Your task to perform on an android device: turn on translation in the chrome app Image 0: 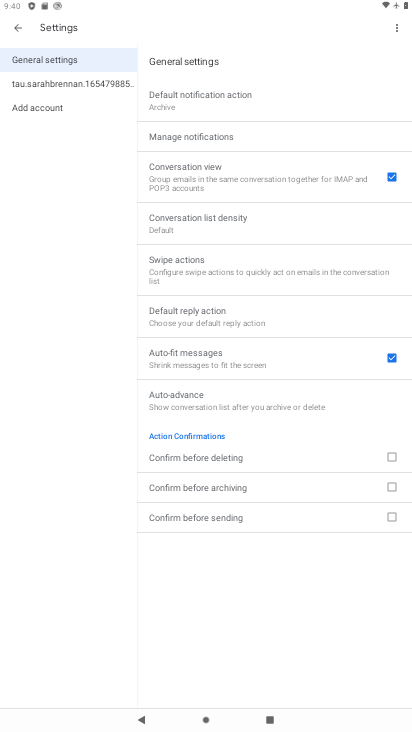
Step 0: press home button
Your task to perform on an android device: turn on translation in the chrome app Image 1: 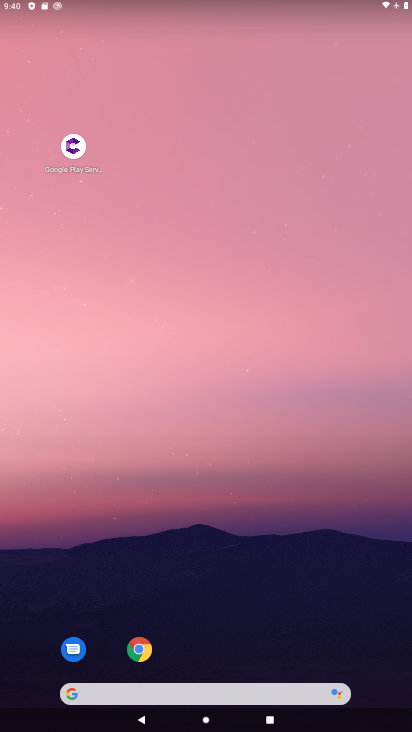
Step 1: click (132, 649)
Your task to perform on an android device: turn on translation in the chrome app Image 2: 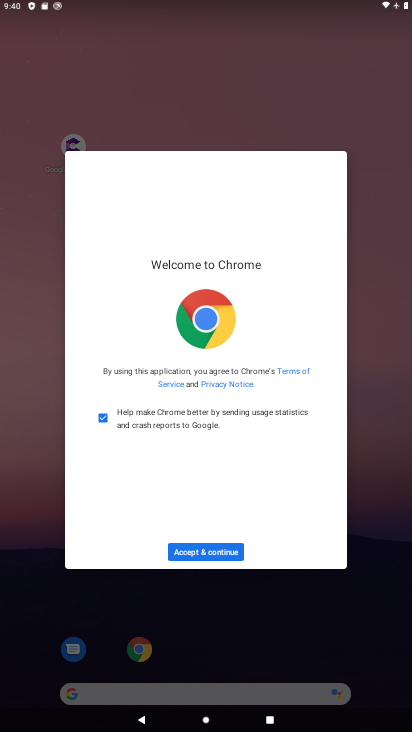
Step 2: click (216, 537)
Your task to perform on an android device: turn on translation in the chrome app Image 3: 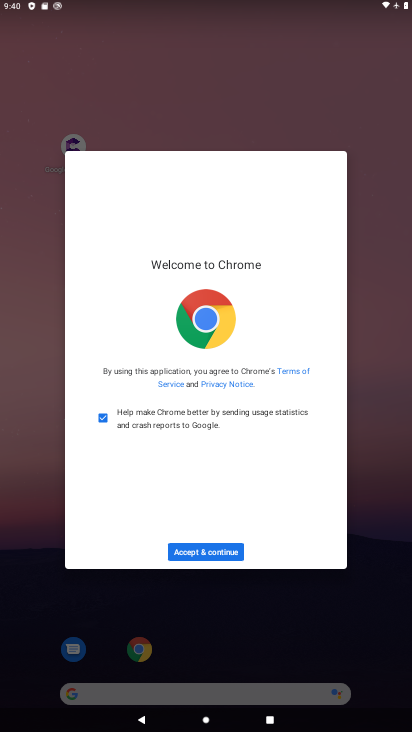
Step 3: click (220, 545)
Your task to perform on an android device: turn on translation in the chrome app Image 4: 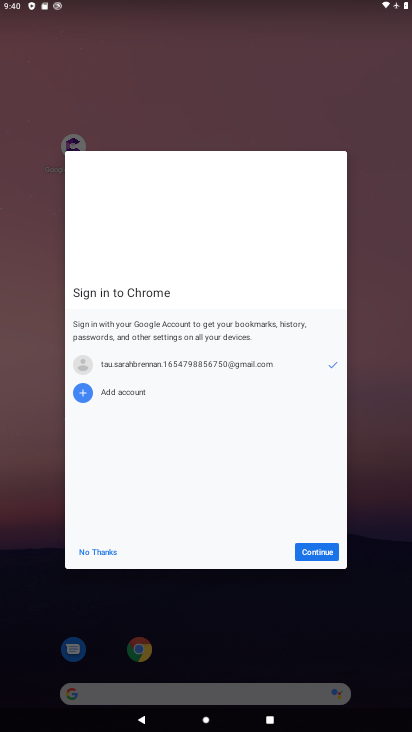
Step 4: click (317, 554)
Your task to perform on an android device: turn on translation in the chrome app Image 5: 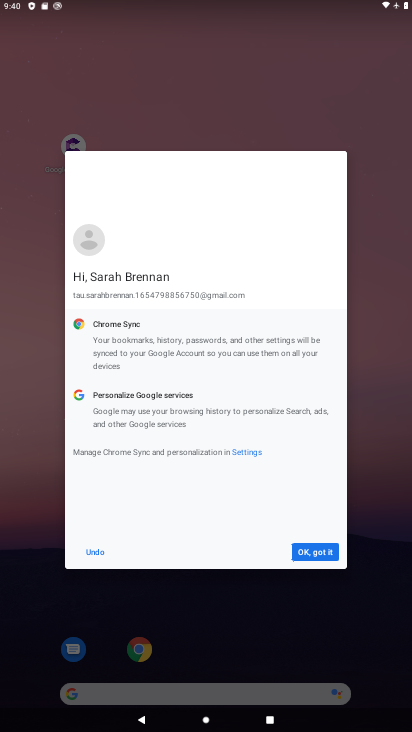
Step 5: click (318, 552)
Your task to perform on an android device: turn on translation in the chrome app Image 6: 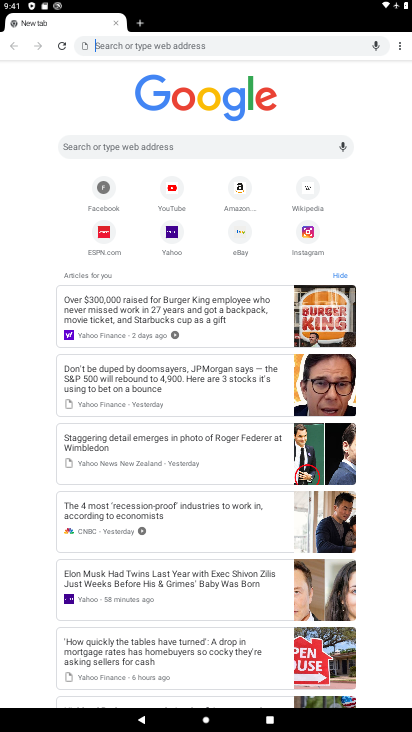
Step 6: click (394, 46)
Your task to perform on an android device: turn on translation in the chrome app Image 7: 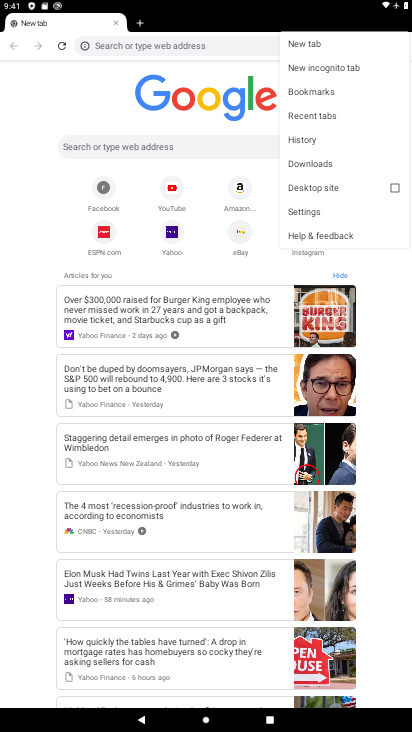
Step 7: click (302, 204)
Your task to perform on an android device: turn on translation in the chrome app Image 8: 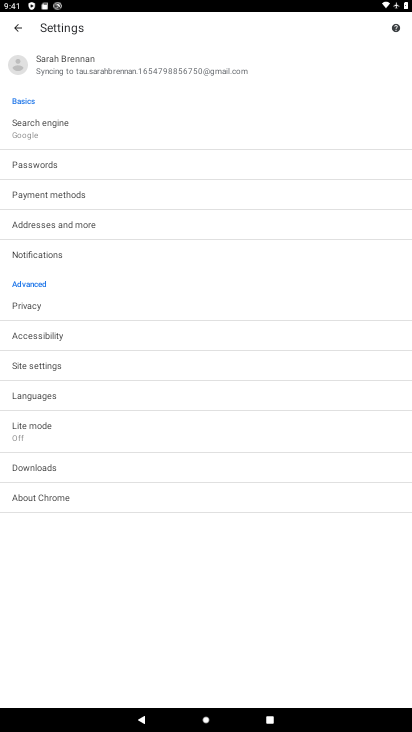
Step 8: click (38, 390)
Your task to perform on an android device: turn on translation in the chrome app Image 9: 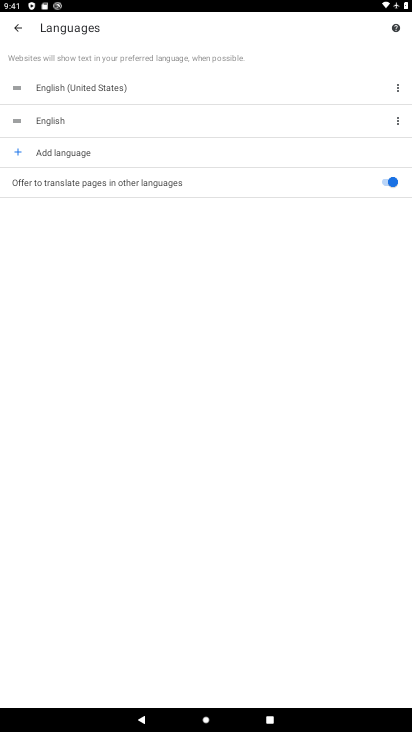
Step 9: task complete